Your task to perform on an android device: turn on javascript in the chrome app Image 0: 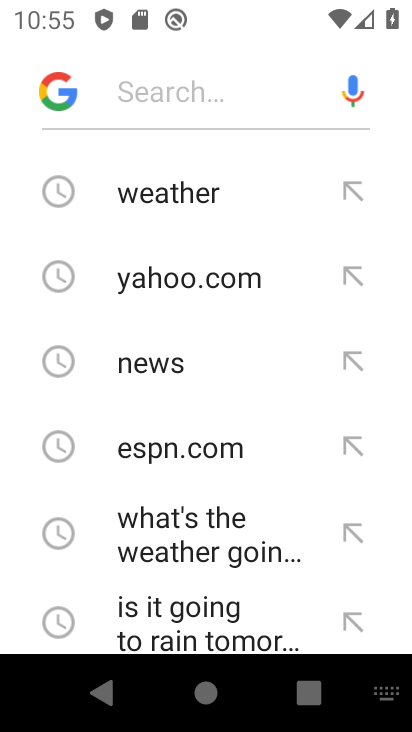
Step 0: press back button
Your task to perform on an android device: turn on javascript in the chrome app Image 1: 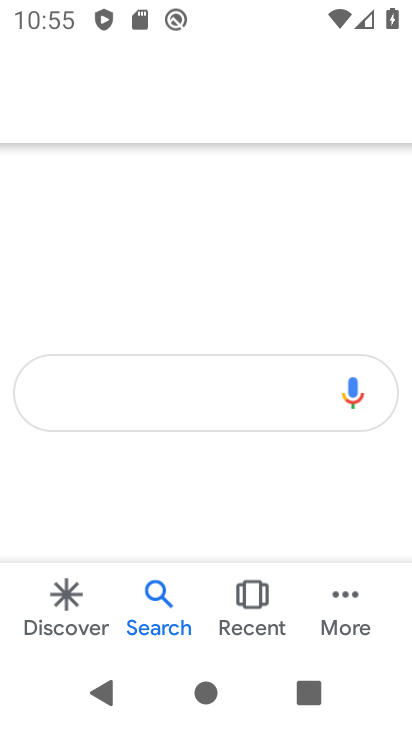
Step 1: press back button
Your task to perform on an android device: turn on javascript in the chrome app Image 2: 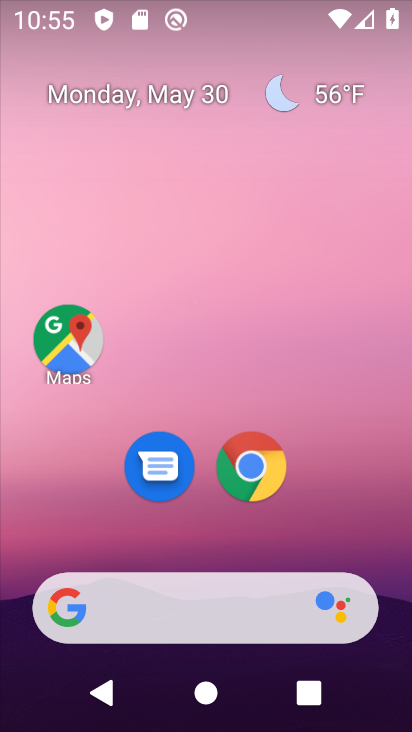
Step 2: click (256, 462)
Your task to perform on an android device: turn on javascript in the chrome app Image 3: 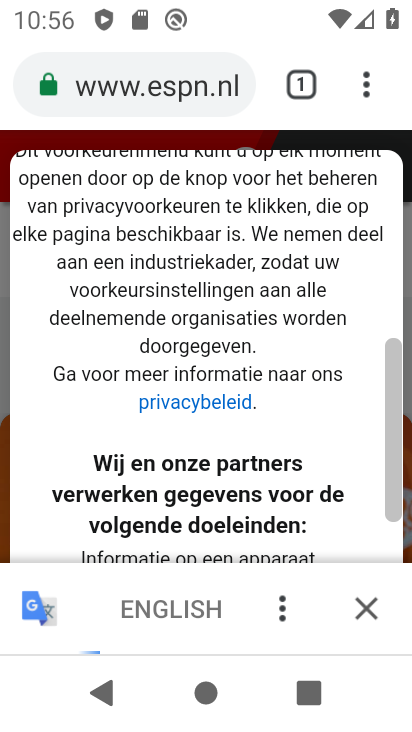
Step 3: click (359, 81)
Your task to perform on an android device: turn on javascript in the chrome app Image 4: 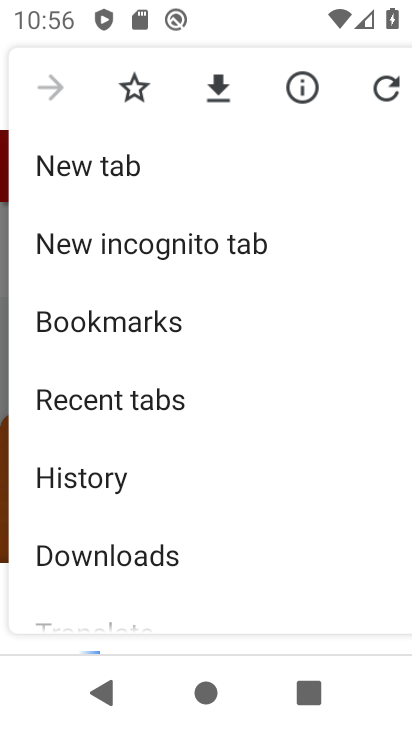
Step 4: drag from (291, 541) to (281, 278)
Your task to perform on an android device: turn on javascript in the chrome app Image 5: 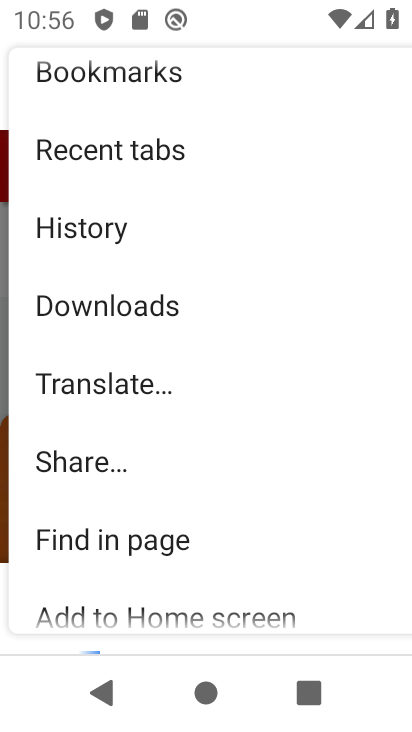
Step 5: drag from (241, 552) to (239, 282)
Your task to perform on an android device: turn on javascript in the chrome app Image 6: 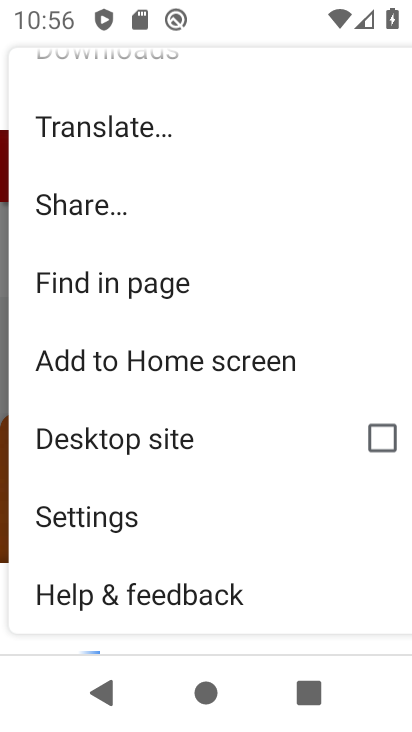
Step 6: click (169, 517)
Your task to perform on an android device: turn on javascript in the chrome app Image 7: 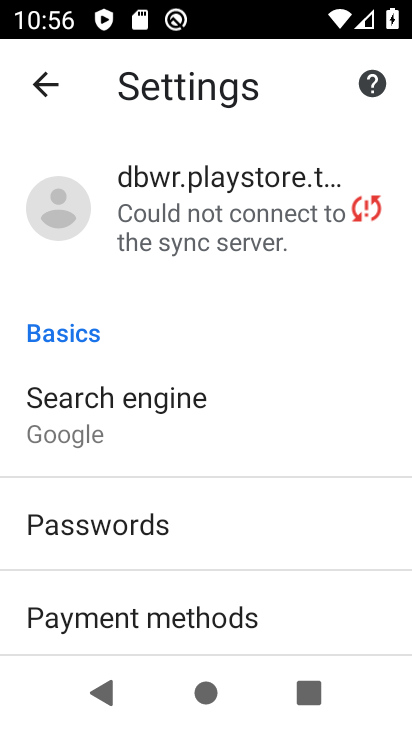
Step 7: drag from (200, 603) to (192, 414)
Your task to perform on an android device: turn on javascript in the chrome app Image 8: 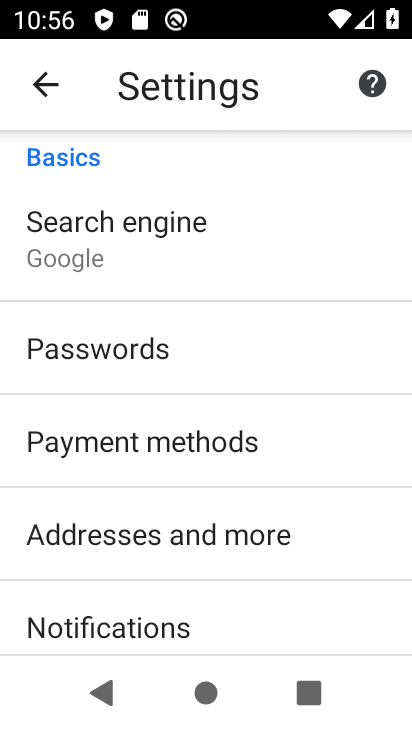
Step 8: drag from (204, 599) to (196, 442)
Your task to perform on an android device: turn on javascript in the chrome app Image 9: 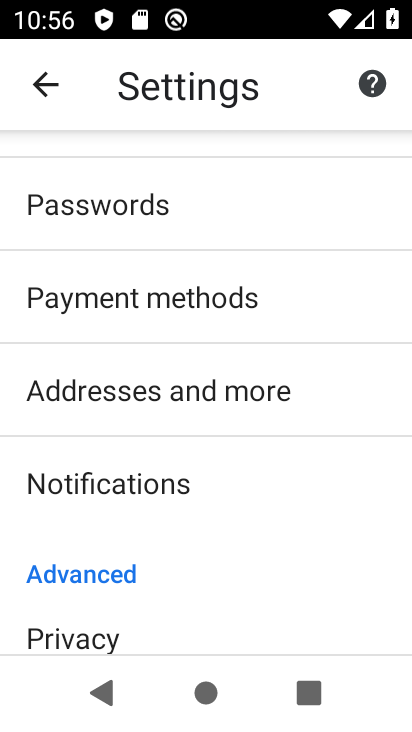
Step 9: drag from (202, 637) to (195, 433)
Your task to perform on an android device: turn on javascript in the chrome app Image 10: 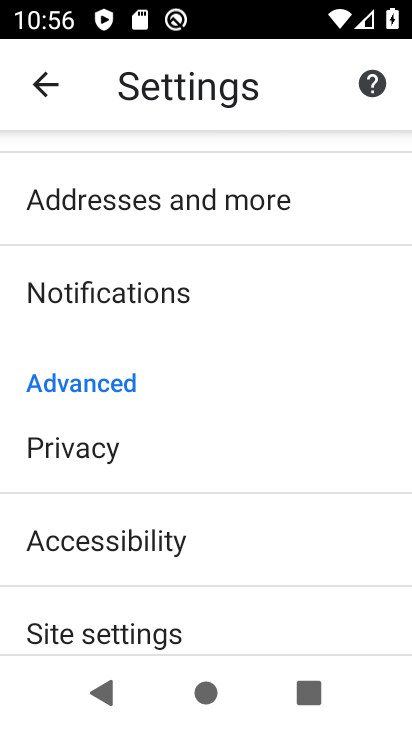
Step 10: drag from (202, 617) to (197, 465)
Your task to perform on an android device: turn on javascript in the chrome app Image 11: 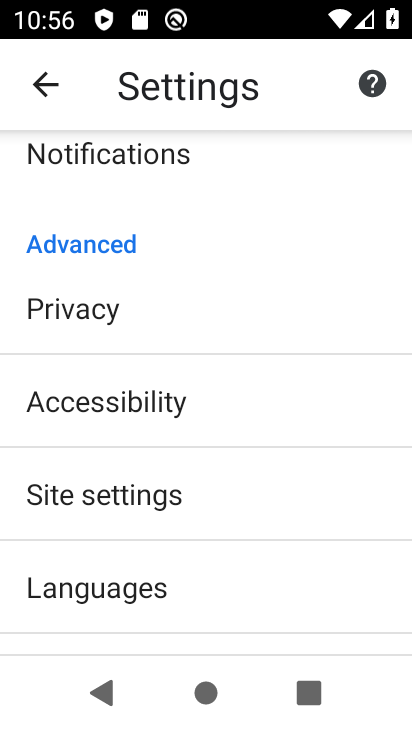
Step 11: click (194, 503)
Your task to perform on an android device: turn on javascript in the chrome app Image 12: 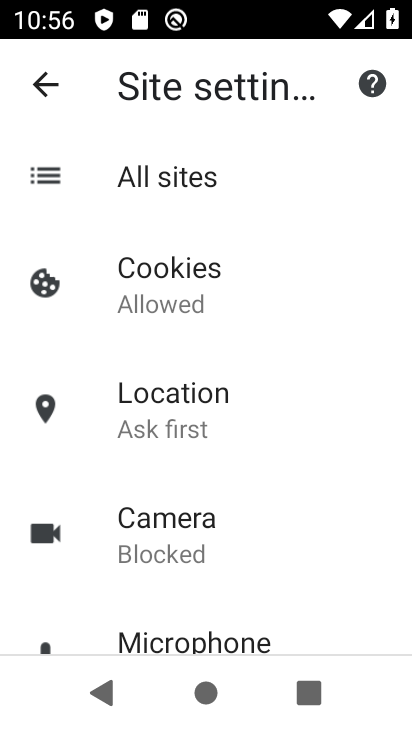
Step 12: drag from (197, 573) to (215, 375)
Your task to perform on an android device: turn on javascript in the chrome app Image 13: 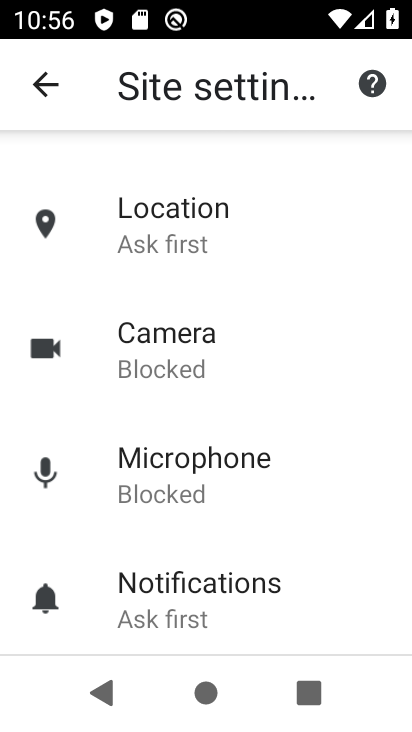
Step 13: drag from (225, 576) to (217, 339)
Your task to perform on an android device: turn on javascript in the chrome app Image 14: 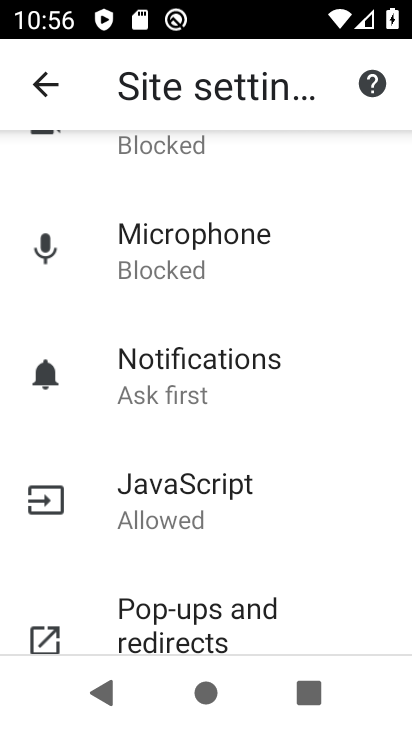
Step 14: click (201, 529)
Your task to perform on an android device: turn on javascript in the chrome app Image 15: 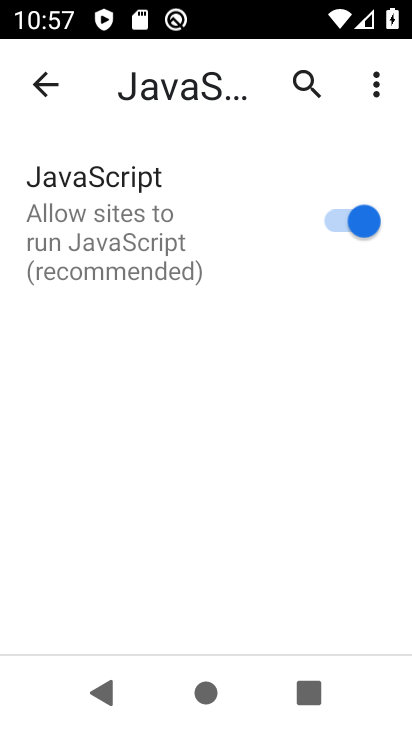
Step 15: task complete